Your task to perform on an android device: Go to privacy settings Image 0: 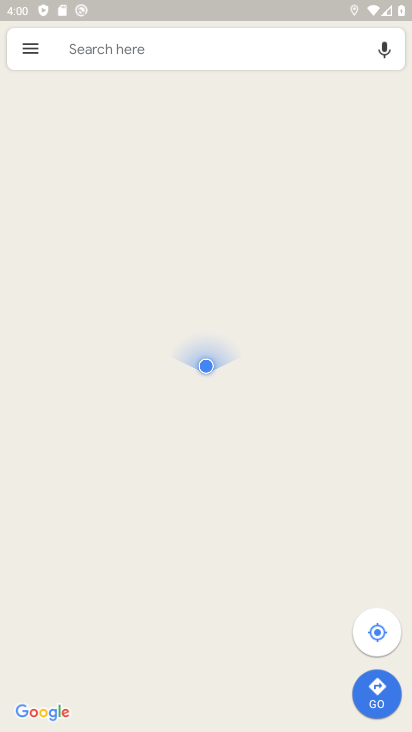
Step 0: press home button
Your task to perform on an android device: Go to privacy settings Image 1: 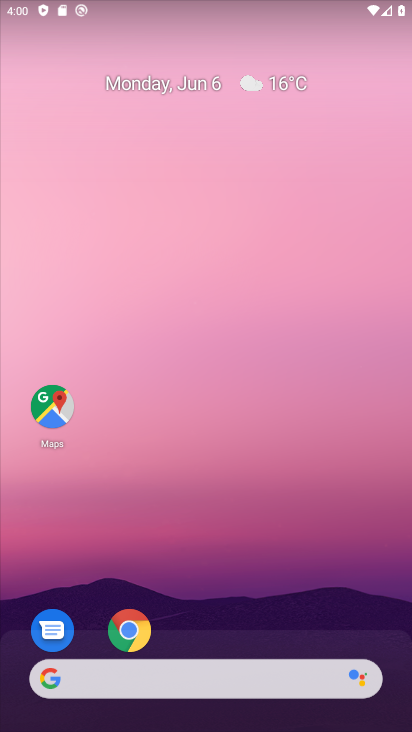
Step 1: click (118, 633)
Your task to perform on an android device: Go to privacy settings Image 2: 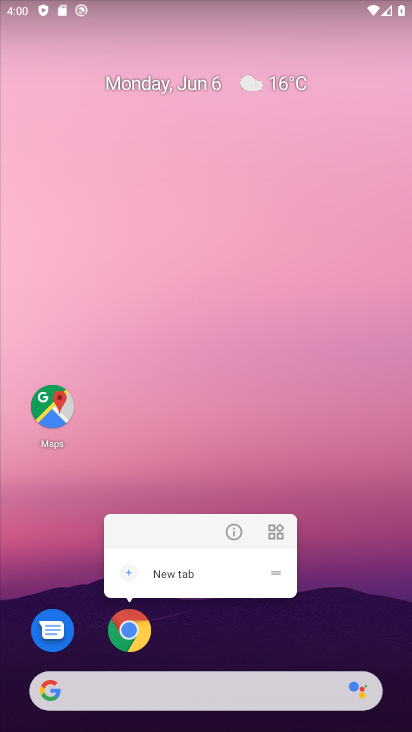
Step 2: click (135, 639)
Your task to perform on an android device: Go to privacy settings Image 3: 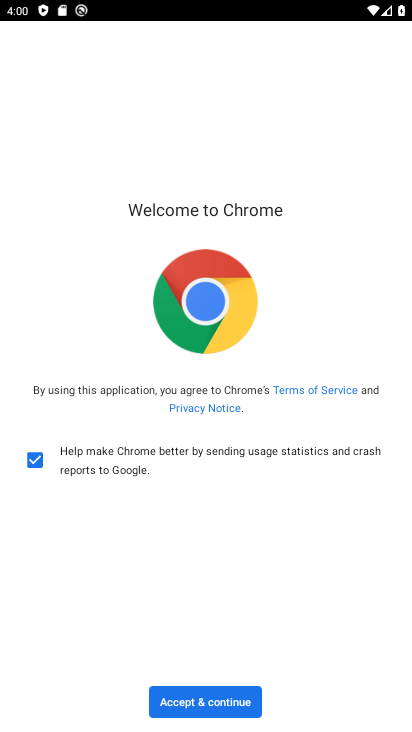
Step 3: click (203, 715)
Your task to perform on an android device: Go to privacy settings Image 4: 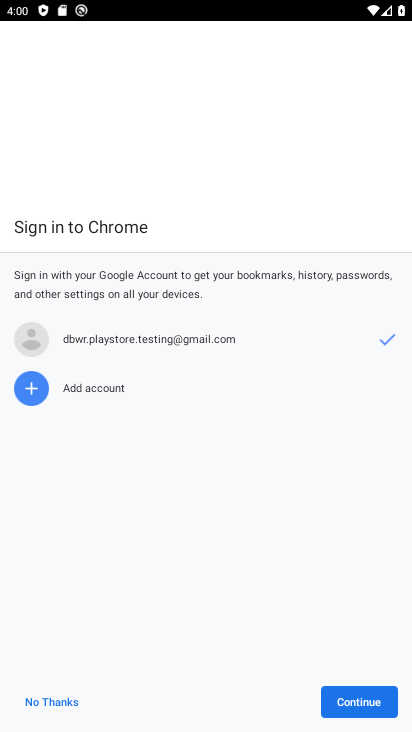
Step 4: click (349, 697)
Your task to perform on an android device: Go to privacy settings Image 5: 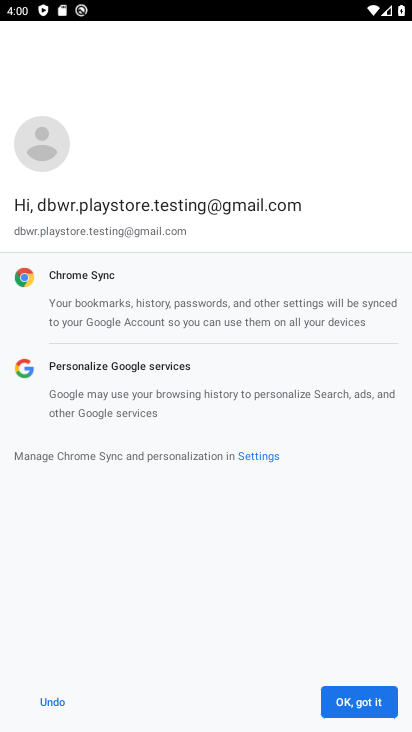
Step 5: click (345, 695)
Your task to perform on an android device: Go to privacy settings Image 6: 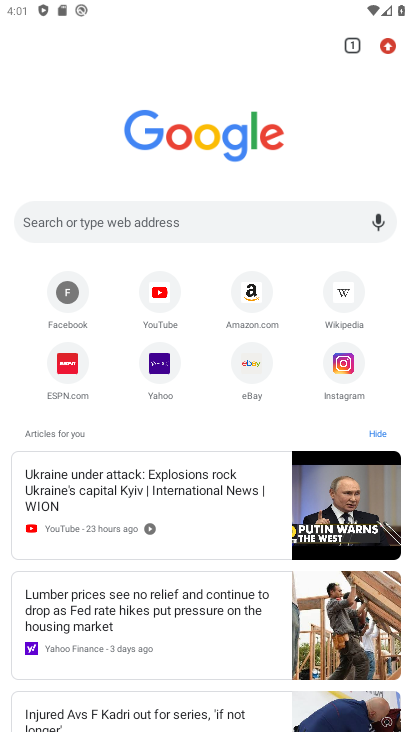
Step 6: drag from (399, 46) to (287, 434)
Your task to perform on an android device: Go to privacy settings Image 7: 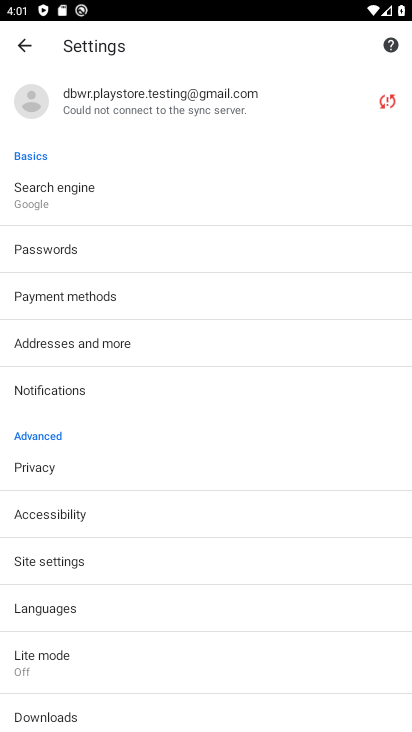
Step 7: drag from (173, 665) to (221, 431)
Your task to perform on an android device: Go to privacy settings Image 8: 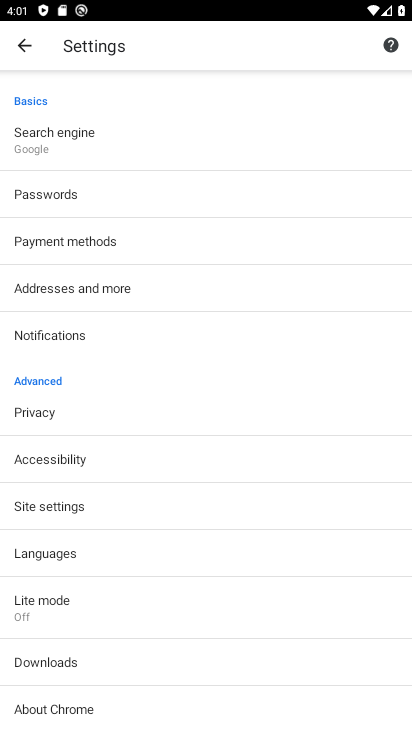
Step 8: click (143, 398)
Your task to perform on an android device: Go to privacy settings Image 9: 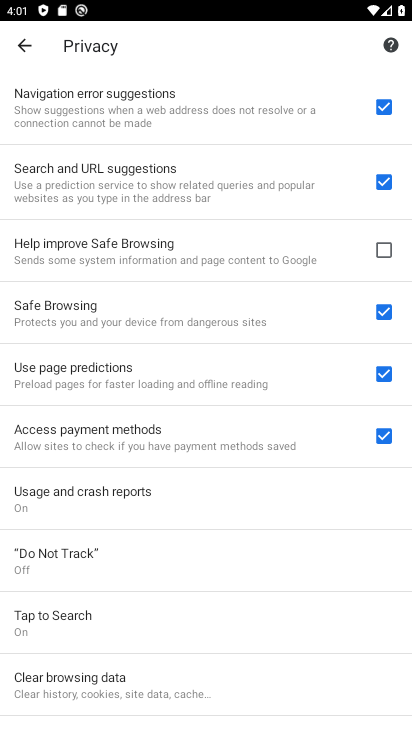
Step 9: task complete